Your task to perform on an android device: Open Yahoo.com Image 0: 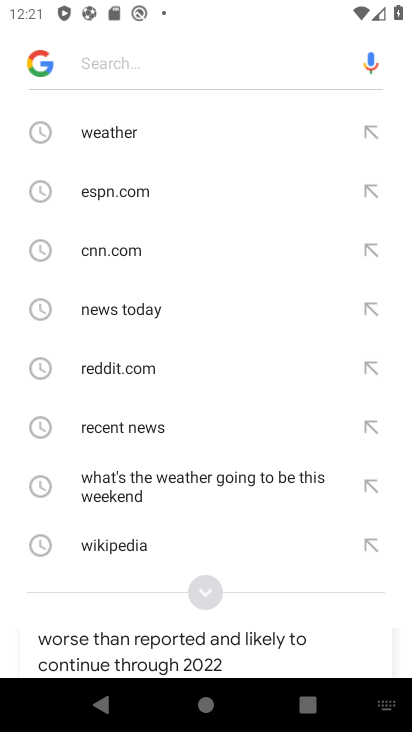
Step 0: press home button
Your task to perform on an android device: Open Yahoo.com Image 1: 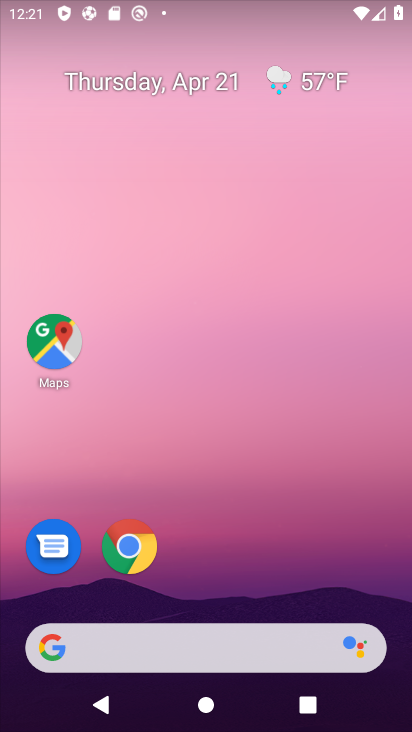
Step 1: click (116, 559)
Your task to perform on an android device: Open Yahoo.com Image 2: 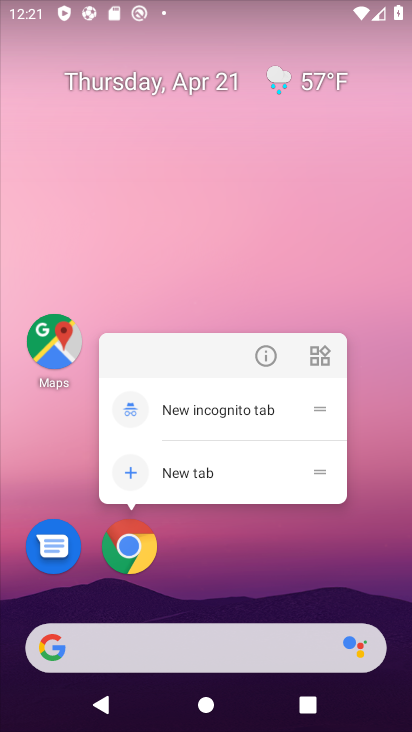
Step 2: click (125, 560)
Your task to perform on an android device: Open Yahoo.com Image 3: 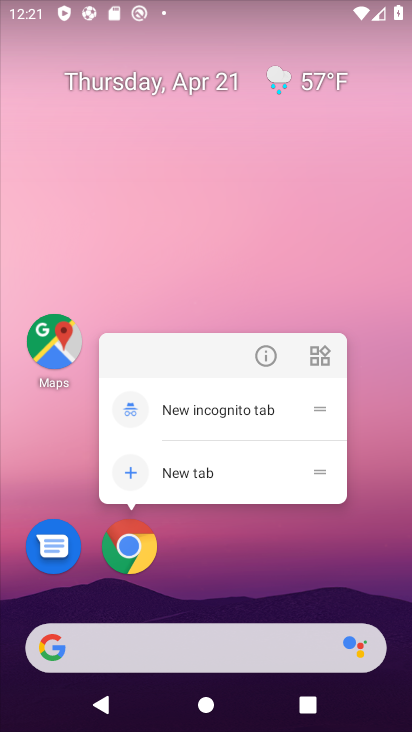
Step 3: click (134, 563)
Your task to perform on an android device: Open Yahoo.com Image 4: 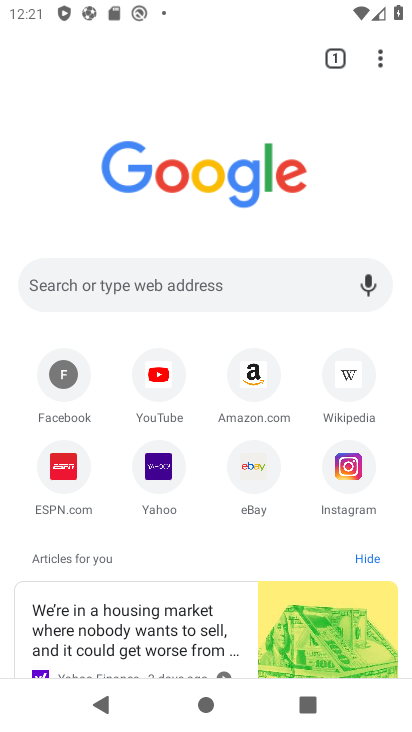
Step 4: click (192, 297)
Your task to perform on an android device: Open Yahoo.com Image 5: 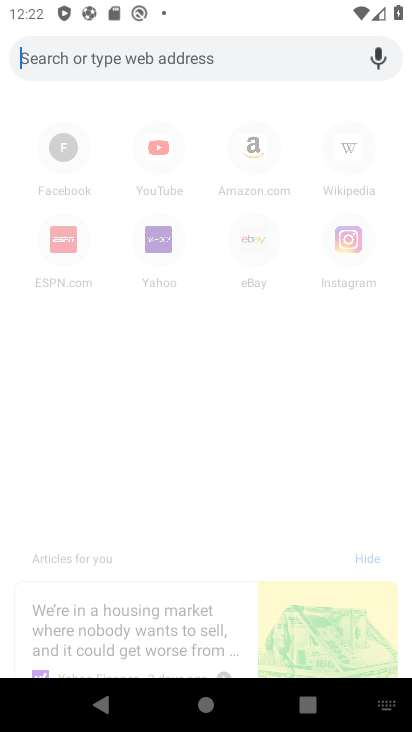
Step 5: type "yahoo.com"
Your task to perform on an android device: Open Yahoo.com Image 6: 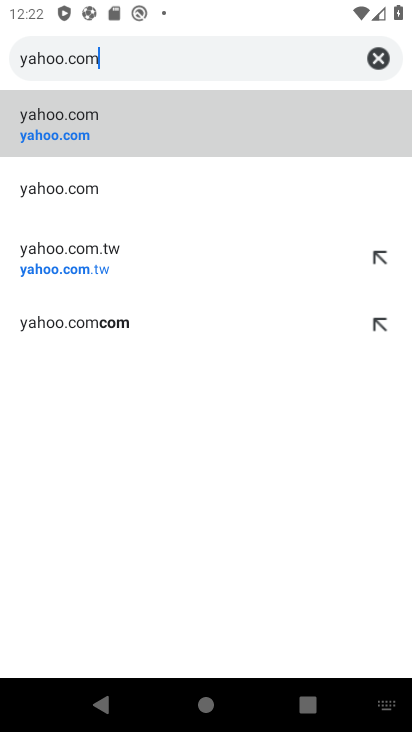
Step 6: click (159, 121)
Your task to perform on an android device: Open Yahoo.com Image 7: 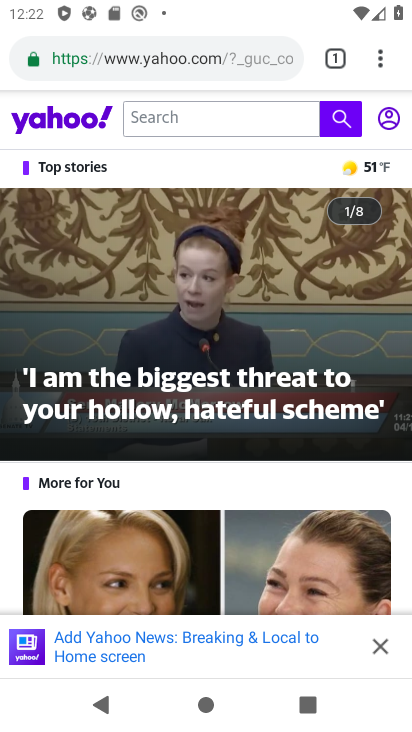
Step 7: task complete